Your task to perform on an android device: Open the calendar and show me this week's events? Image 0: 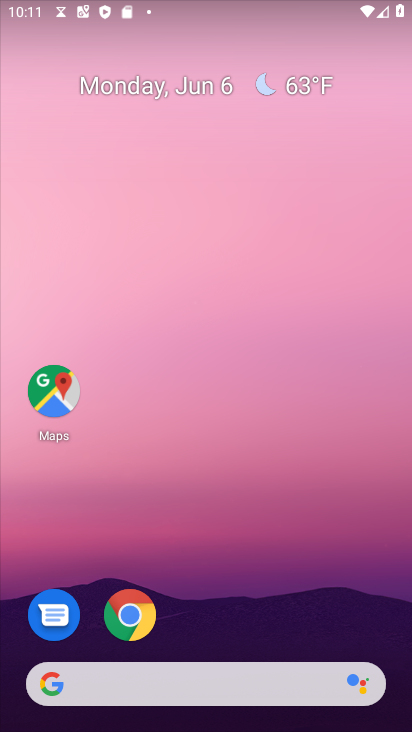
Step 0: press home button
Your task to perform on an android device: Open the calendar and show me this week's events? Image 1: 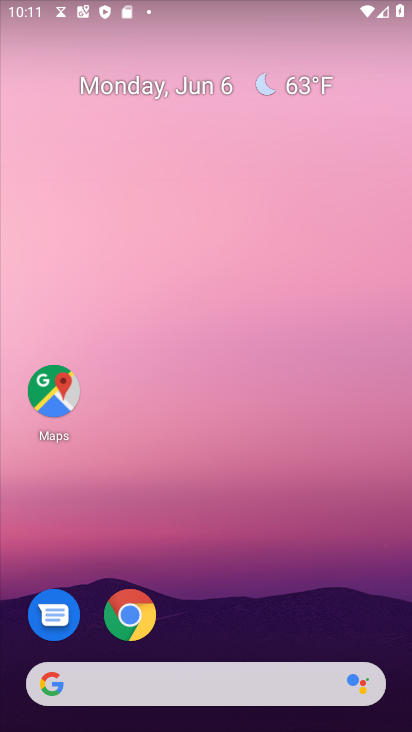
Step 1: drag from (229, 646) to (233, 49)
Your task to perform on an android device: Open the calendar and show me this week's events? Image 2: 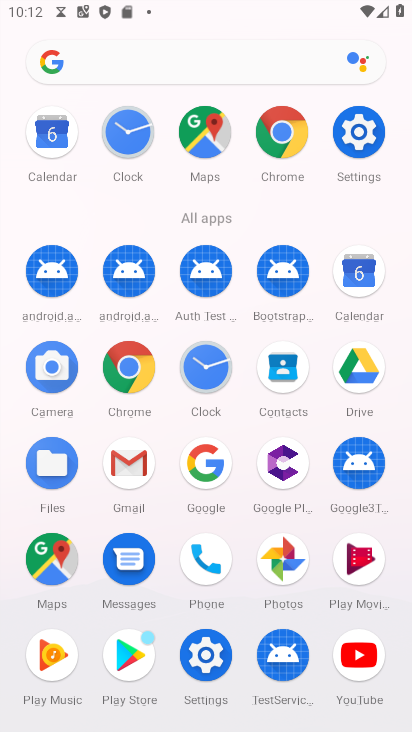
Step 2: click (369, 269)
Your task to perform on an android device: Open the calendar and show me this week's events? Image 3: 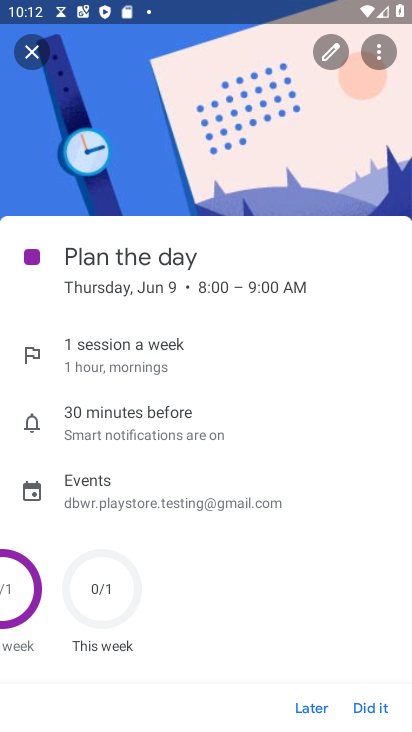
Step 3: click (31, 54)
Your task to perform on an android device: Open the calendar and show me this week's events? Image 4: 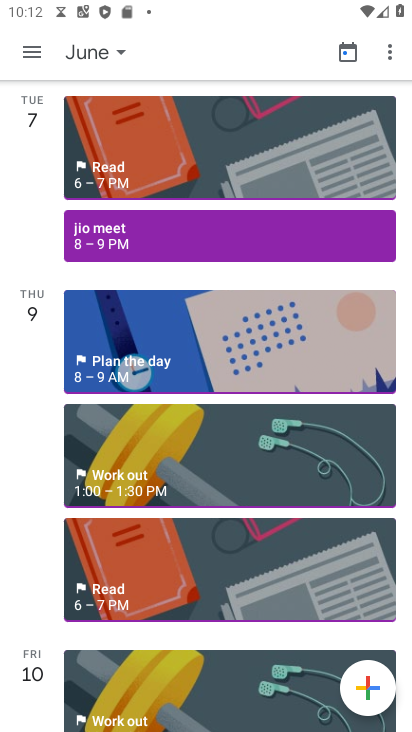
Step 4: drag from (39, 157) to (62, 607)
Your task to perform on an android device: Open the calendar and show me this week's events? Image 5: 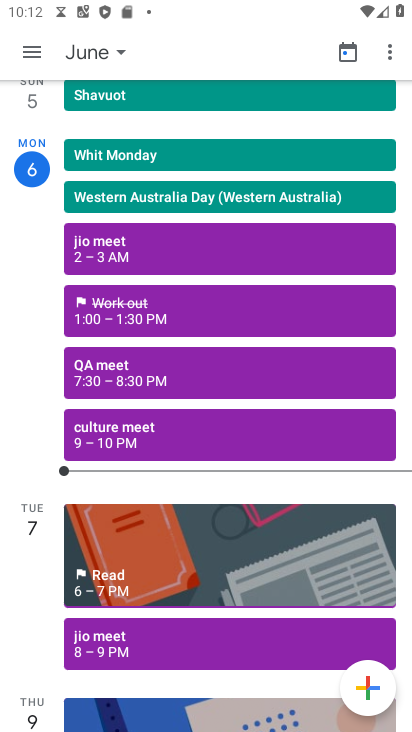
Step 5: click (33, 49)
Your task to perform on an android device: Open the calendar and show me this week's events? Image 6: 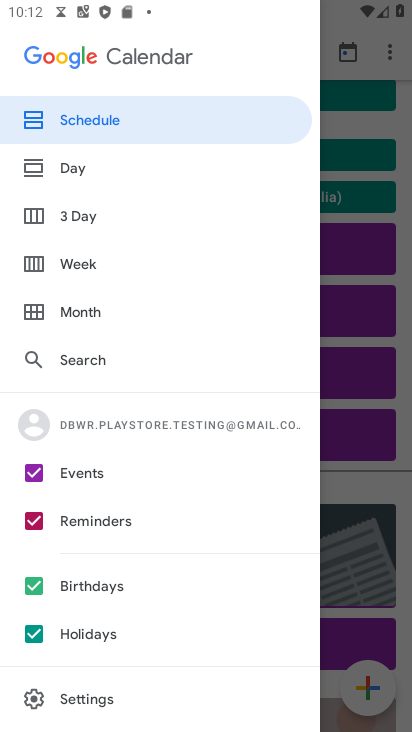
Step 6: click (34, 631)
Your task to perform on an android device: Open the calendar and show me this week's events? Image 7: 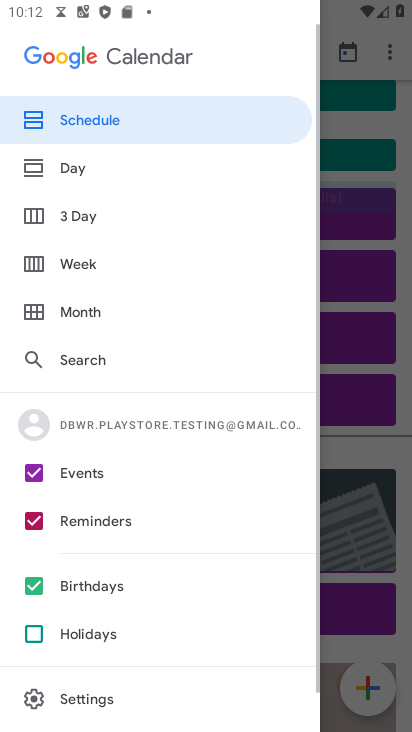
Step 7: click (37, 578)
Your task to perform on an android device: Open the calendar and show me this week's events? Image 8: 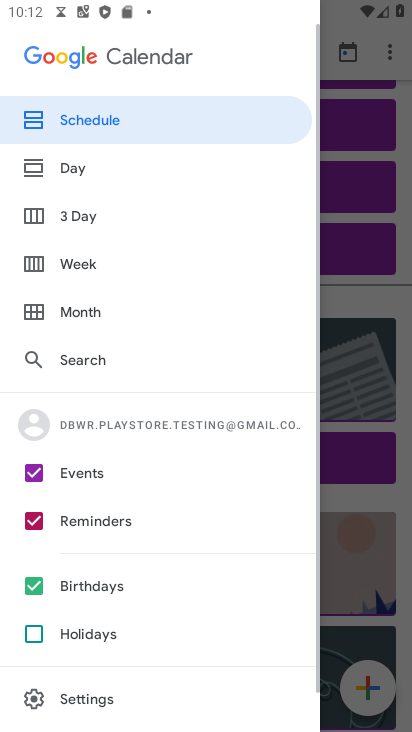
Step 8: click (33, 510)
Your task to perform on an android device: Open the calendar and show me this week's events? Image 9: 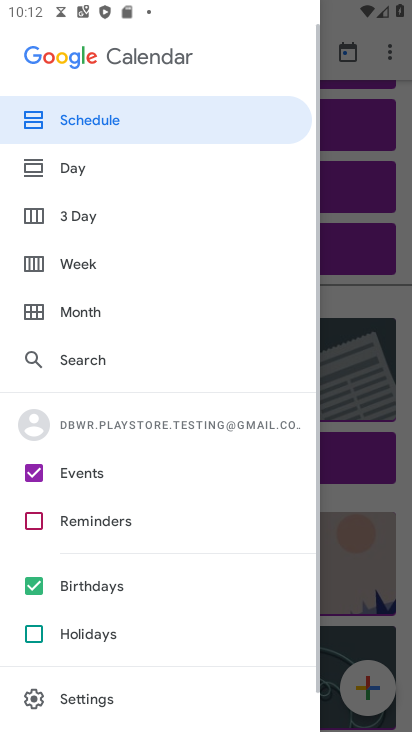
Step 9: click (29, 580)
Your task to perform on an android device: Open the calendar and show me this week's events? Image 10: 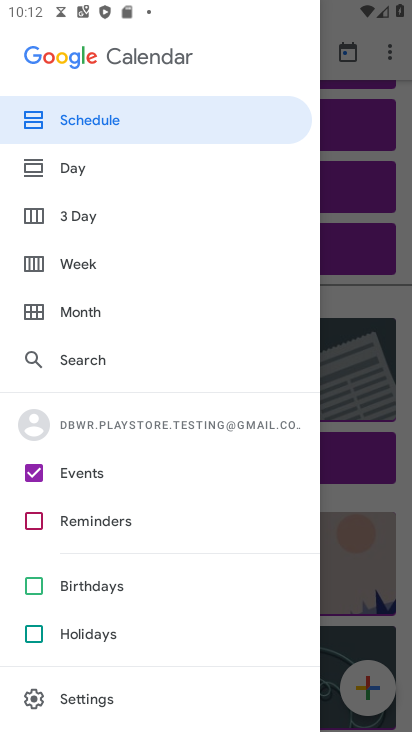
Step 10: click (58, 115)
Your task to perform on an android device: Open the calendar and show me this week's events? Image 11: 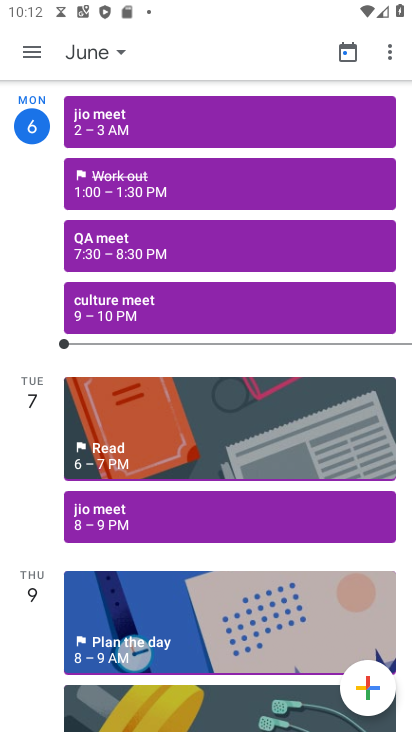
Step 11: task complete